Your task to perform on an android device: set the timer Image 0: 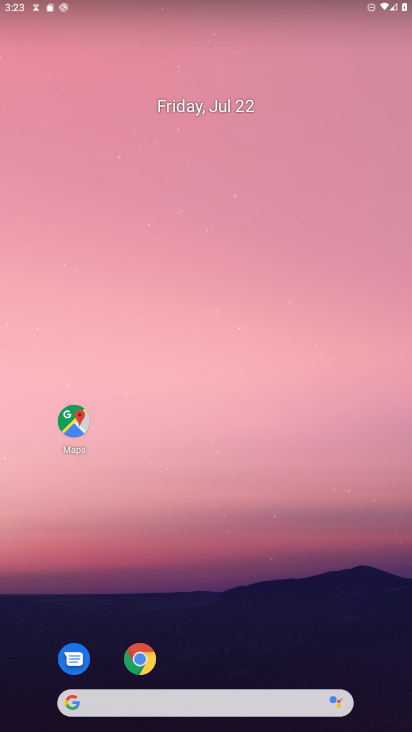
Step 0: drag from (246, 570) to (287, 0)
Your task to perform on an android device: set the timer Image 1: 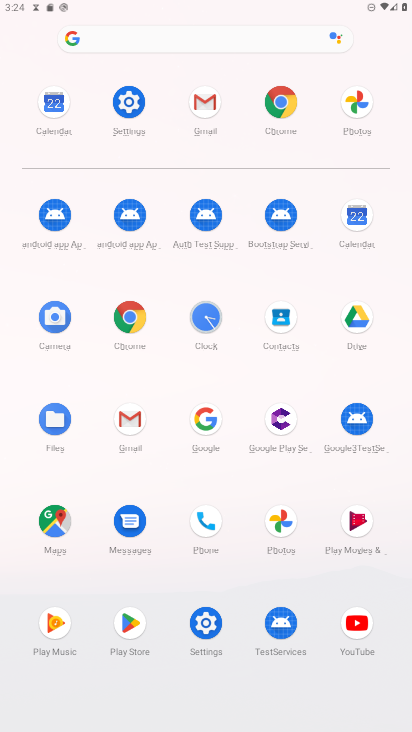
Step 1: click (212, 327)
Your task to perform on an android device: set the timer Image 2: 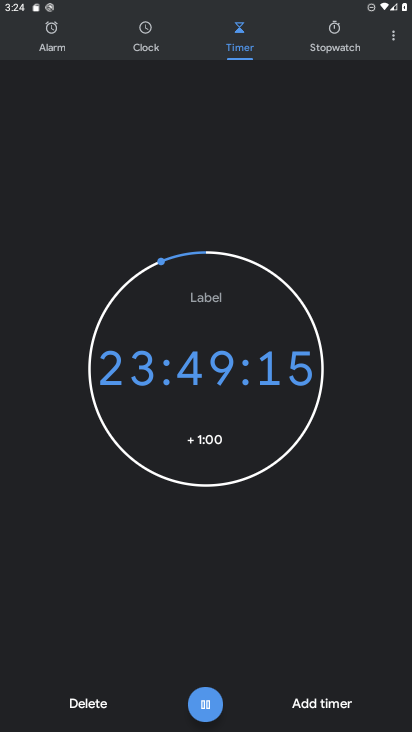
Step 2: task complete